Your task to perform on an android device: delete location history Image 0: 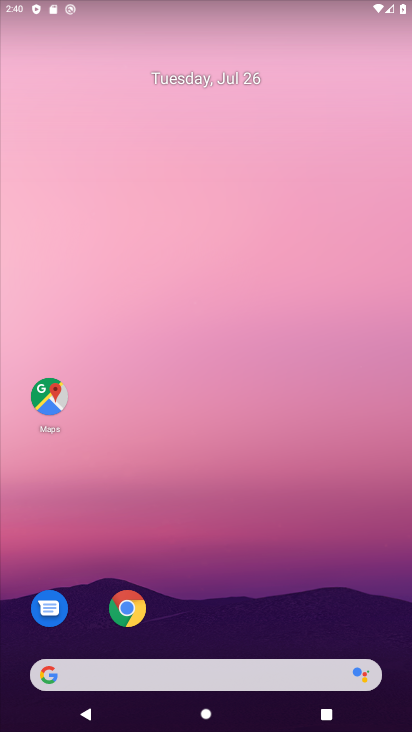
Step 0: drag from (198, 621) to (197, 80)
Your task to perform on an android device: delete location history Image 1: 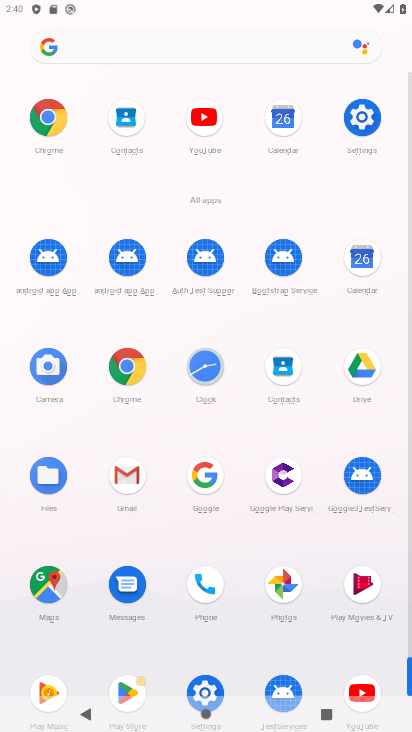
Step 1: click (47, 581)
Your task to perform on an android device: delete location history Image 2: 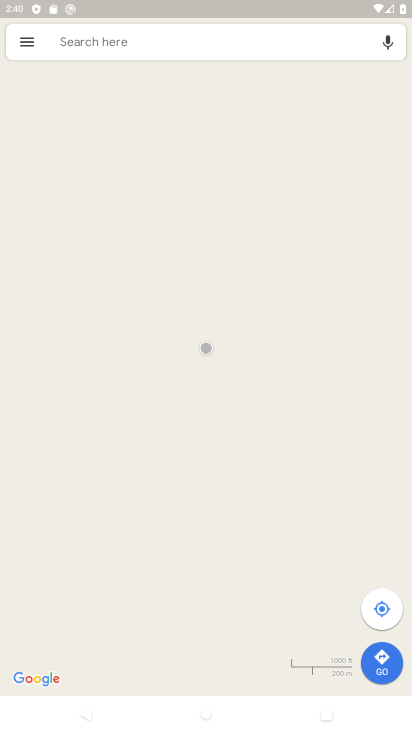
Step 2: click (26, 38)
Your task to perform on an android device: delete location history Image 3: 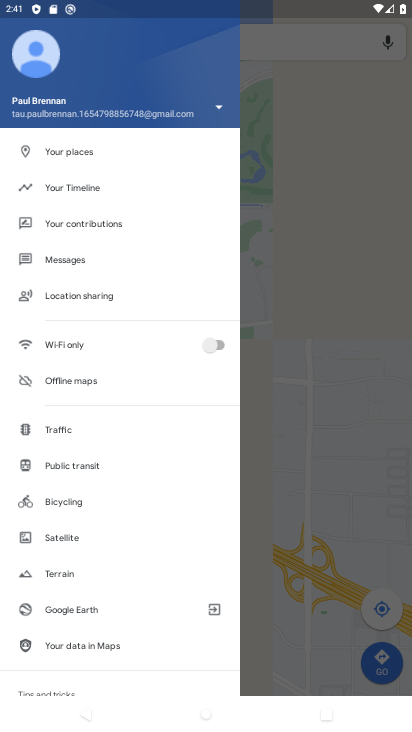
Step 3: click (91, 190)
Your task to perform on an android device: delete location history Image 4: 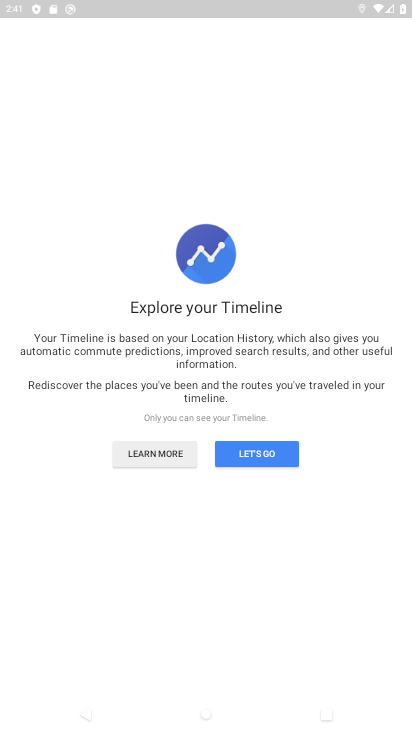
Step 4: click (269, 447)
Your task to perform on an android device: delete location history Image 5: 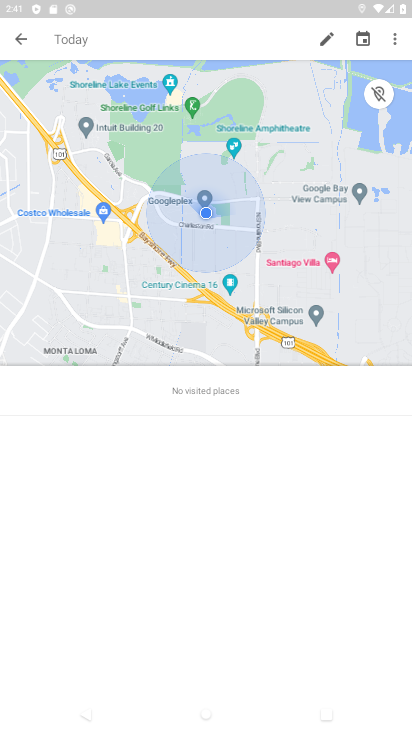
Step 5: click (398, 32)
Your task to perform on an android device: delete location history Image 6: 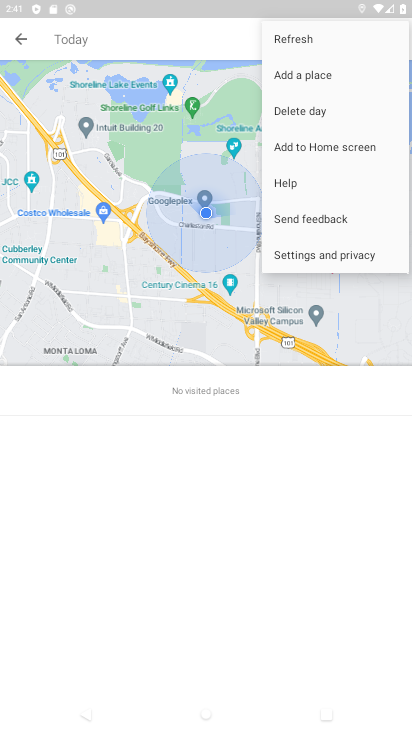
Step 6: click (320, 261)
Your task to perform on an android device: delete location history Image 7: 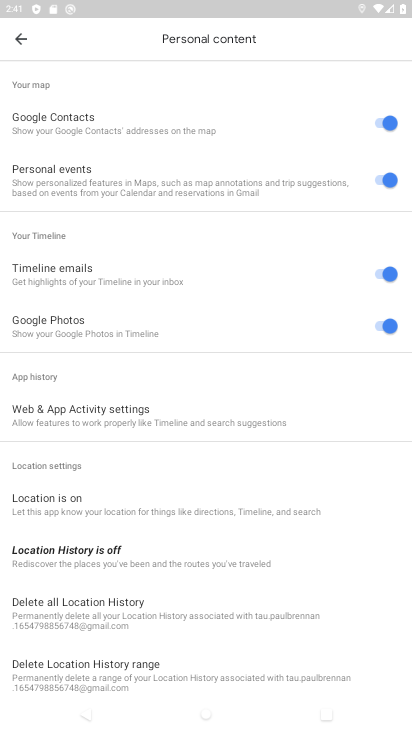
Step 7: click (103, 610)
Your task to perform on an android device: delete location history Image 8: 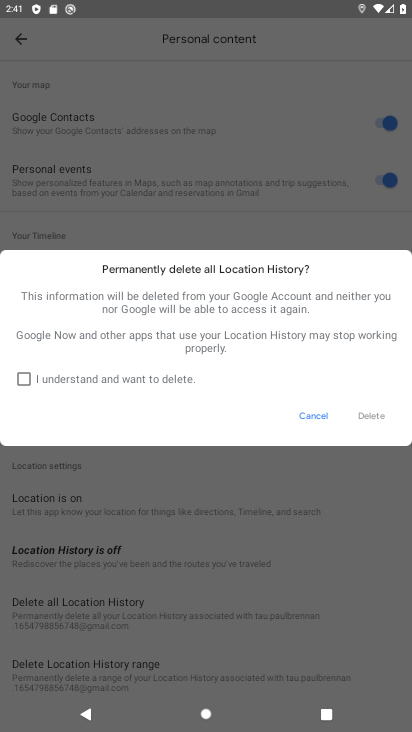
Step 8: click (23, 369)
Your task to perform on an android device: delete location history Image 9: 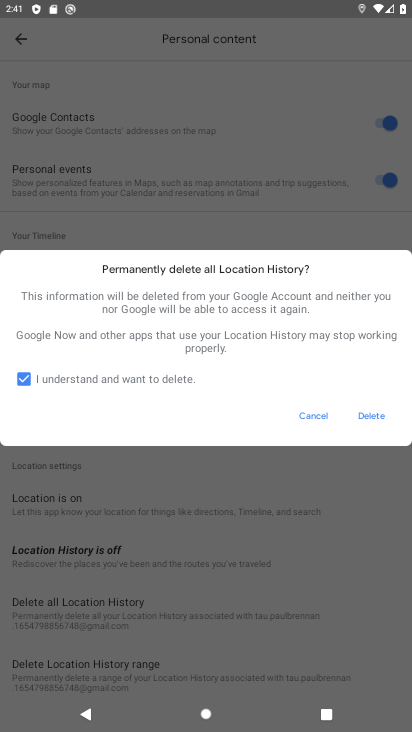
Step 9: click (369, 411)
Your task to perform on an android device: delete location history Image 10: 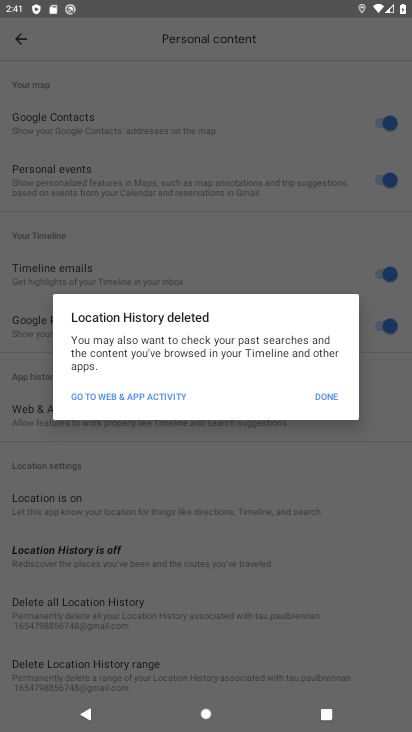
Step 10: click (322, 393)
Your task to perform on an android device: delete location history Image 11: 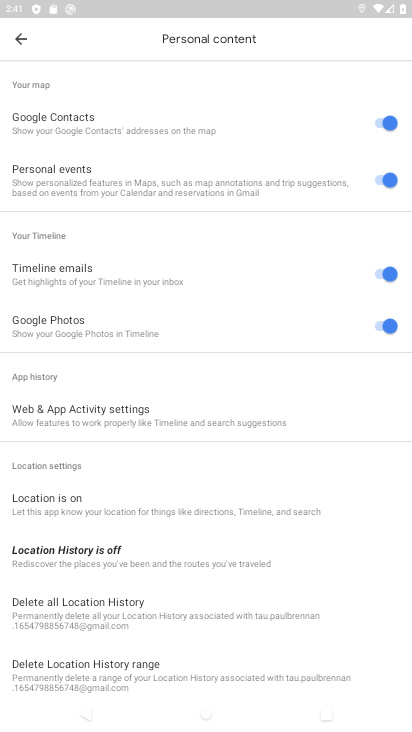
Step 11: task complete